Your task to perform on an android device: check google app version Image 0: 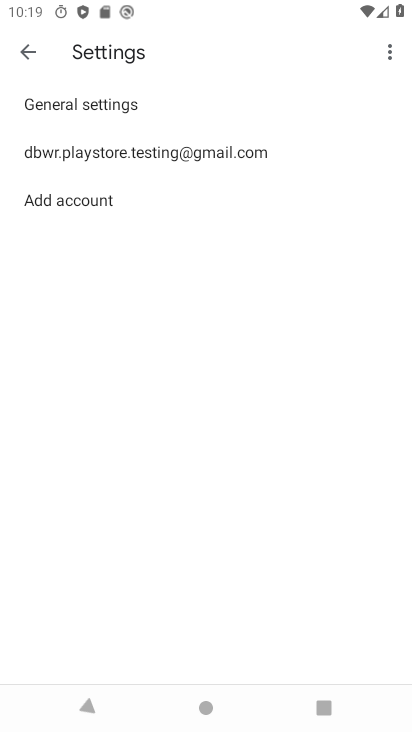
Step 0: press home button
Your task to perform on an android device: check google app version Image 1: 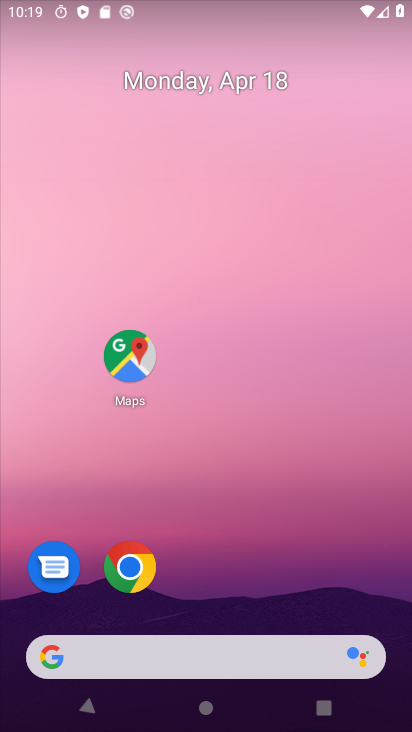
Step 1: drag from (268, 683) to (262, 202)
Your task to perform on an android device: check google app version Image 2: 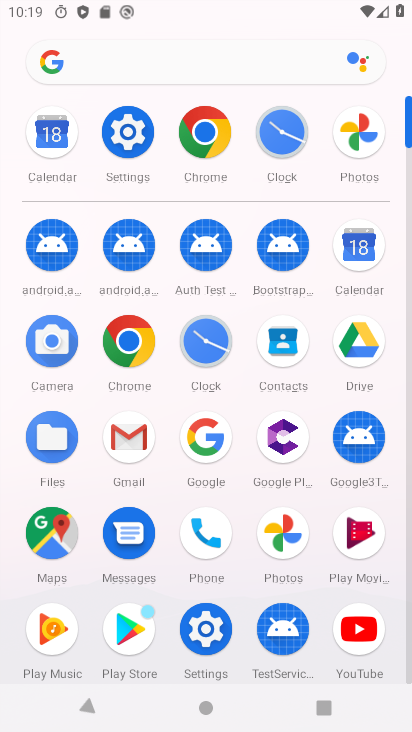
Step 2: click (196, 152)
Your task to perform on an android device: check google app version Image 3: 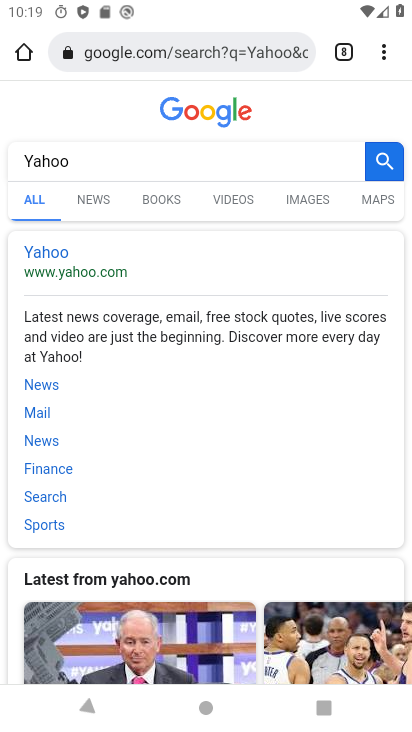
Step 3: click (47, 249)
Your task to perform on an android device: check google app version Image 4: 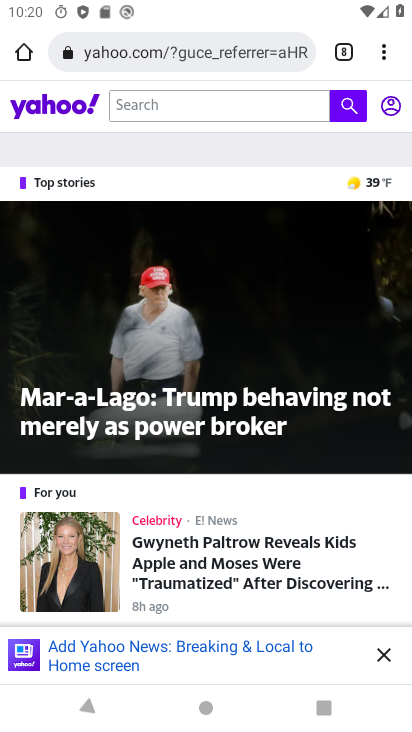
Step 4: click (388, 54)
Your task to perform on an android device: check google app version Image 5: 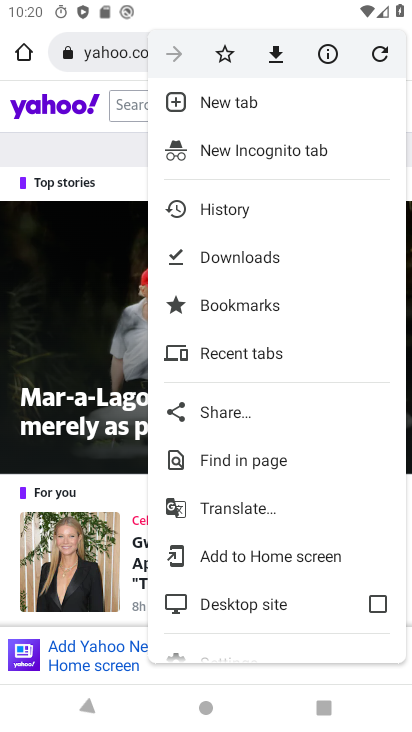
Step 5: click (214, 651)
Your task to perform on an android device: check google app version Image 6: 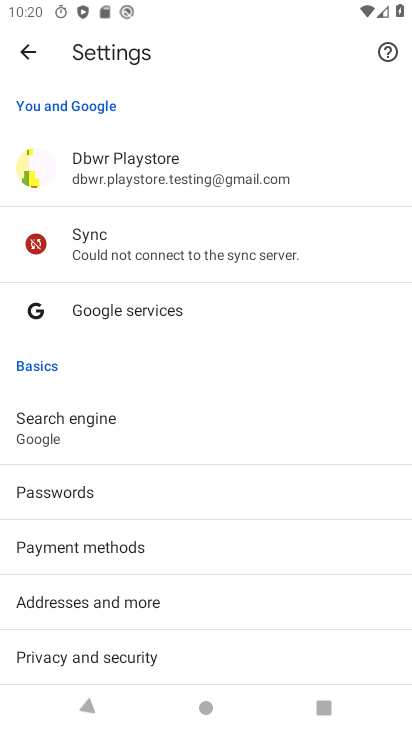
Step 6: drag from (170, 615) to (374, 223)
Your task to perform on an android device: check google app version Image 7: 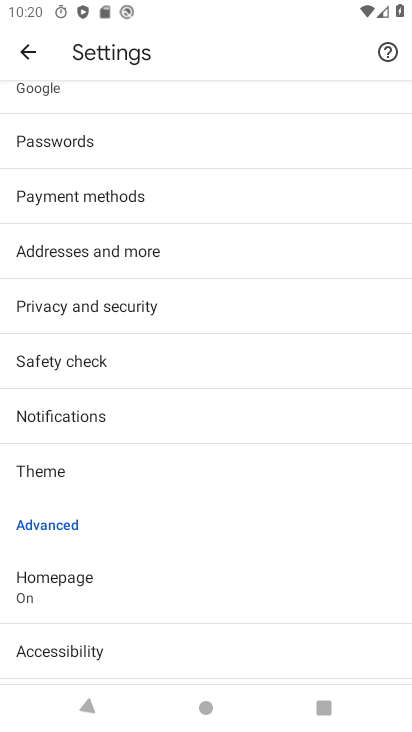
Step 7: drag from (91, 631) to (239, 270)
Your task to perform on an android device: check google app version Image 8: 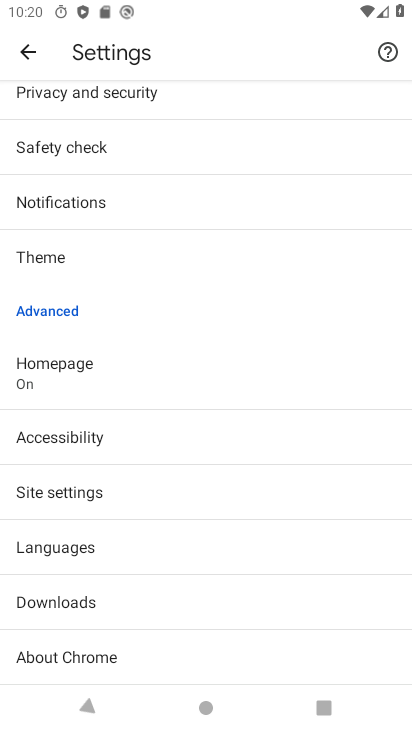
Step 8: click (55, 647)
Your task to perform on an android device: check google app version Image 9: 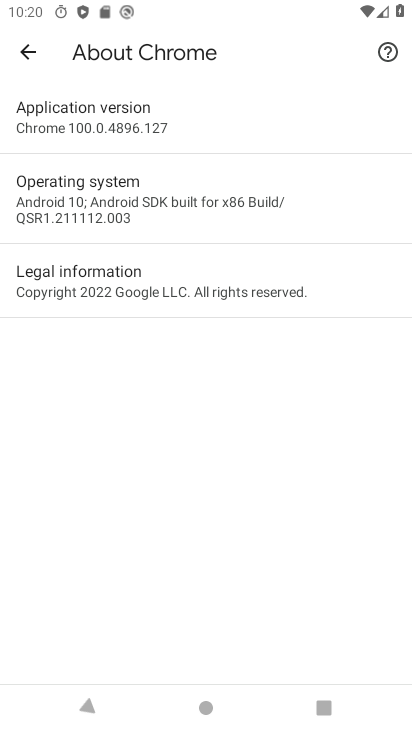
Step 9: click (122, 108)
Your task to perform on an android device: check google app version Image 10: 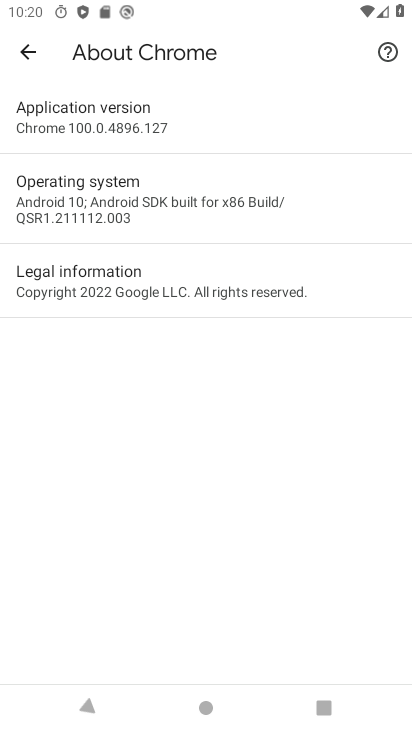
Step 10: task complete